Your task to perform on an android device: find snoozed emails in the gmail app Image 0: 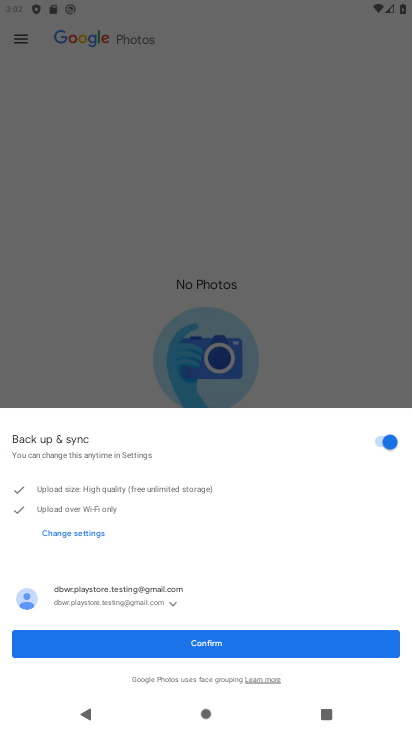
Step 0: press home button
Your task to perform on an android device: find snoozed emails in the gmail app Image 1: 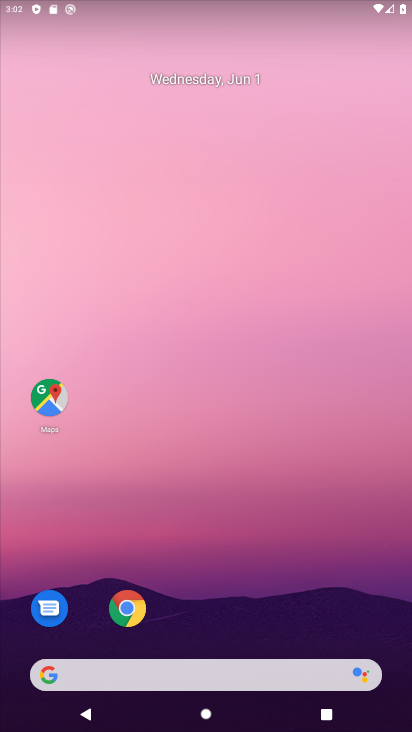
Step 1: drag from (186, 669) to (197, 50)
Your task to perform on an android device: find snoozed emails in the gmail app Image 2: 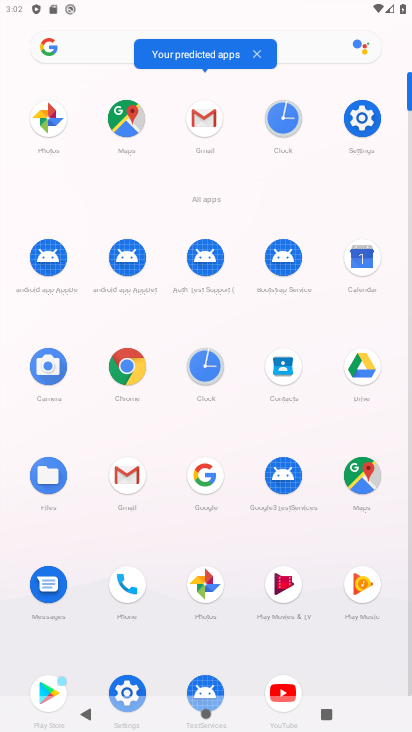
Step 2: click (139, 474)
Your task to perform on an android device: find snoozed emails in the gmail app Image 3: 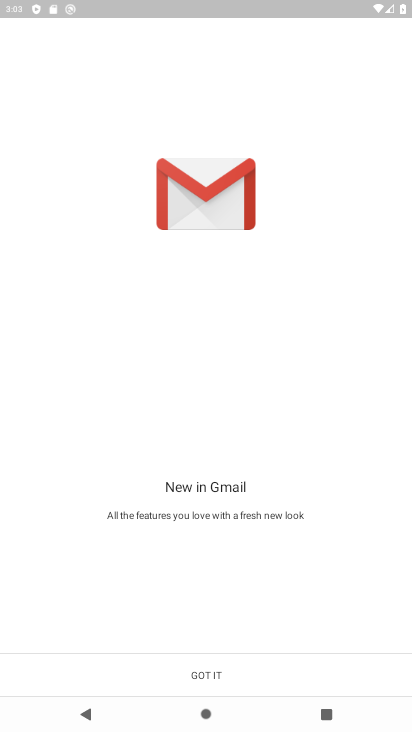
Step 3: click (219, 672)
Your task to perform on an android device: find snoozed emails in the gmail app Image 4: 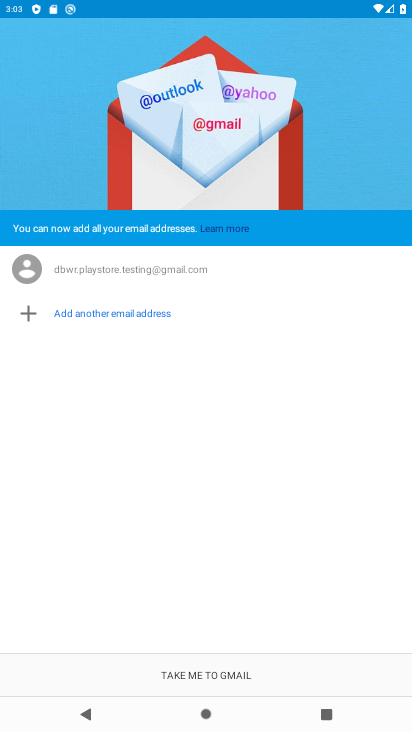
Step 4: click (240, 671)
Your task to perform on an android device: find snoozed emails in the gmail app Image 5: 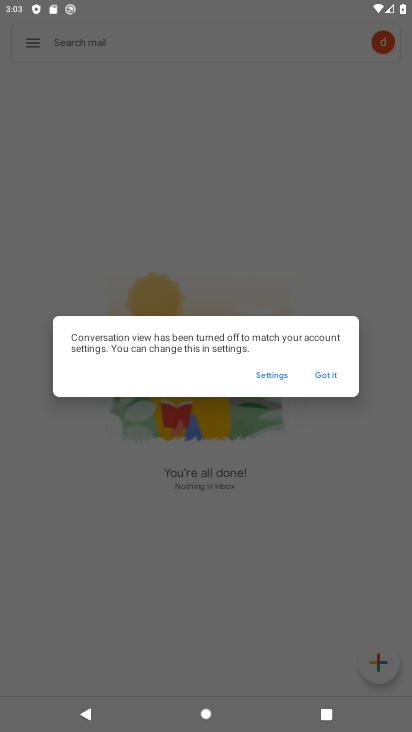
Step 5: click (324, 371)
Your task to perform on an android device: find snoozed emails in the gmail app Image 6: 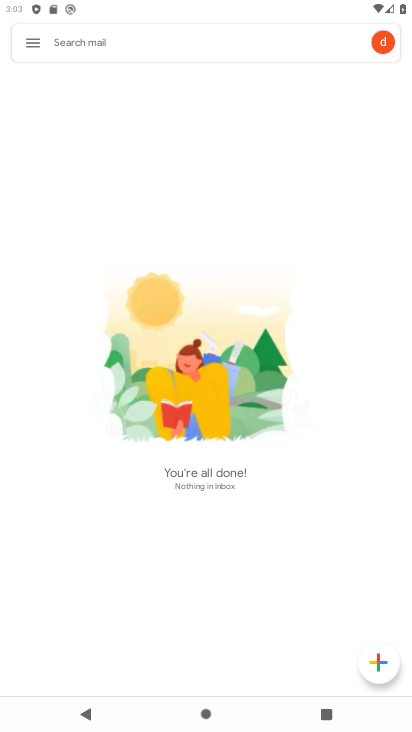
Step 6: click (26, 39)
Your task to perform on an android device: find snoozed emails in the gmail app Image 7: 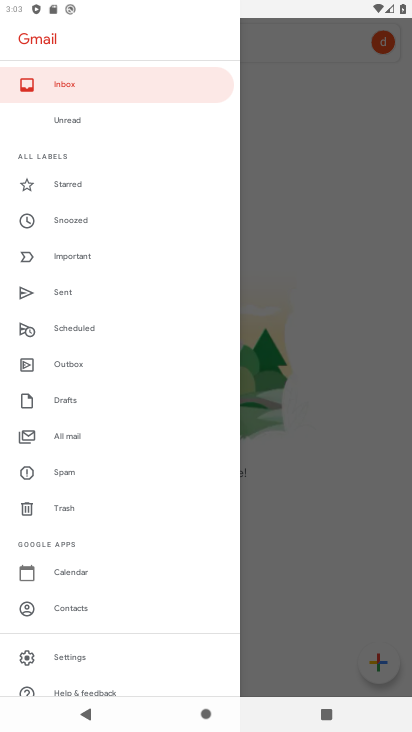
Step 7: drag from (110, 541) to (110, 198)
Your task to perform on an android device: find snoozed emails in the gmail app Image 8: 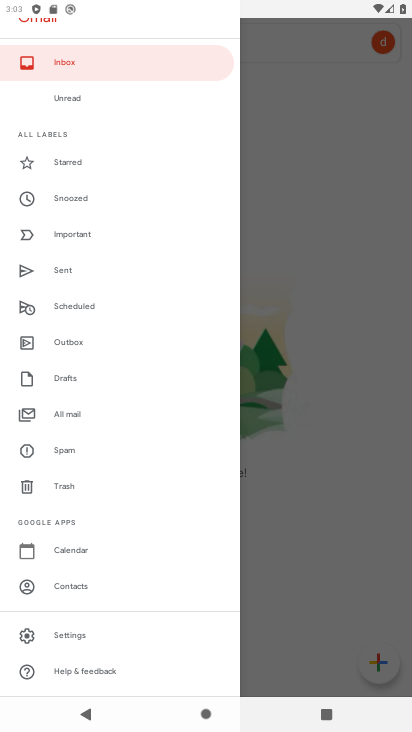
Step 8: click (63, 201)
Your task to perform on an android device: find snoozed emails in the gmail app Image 9: 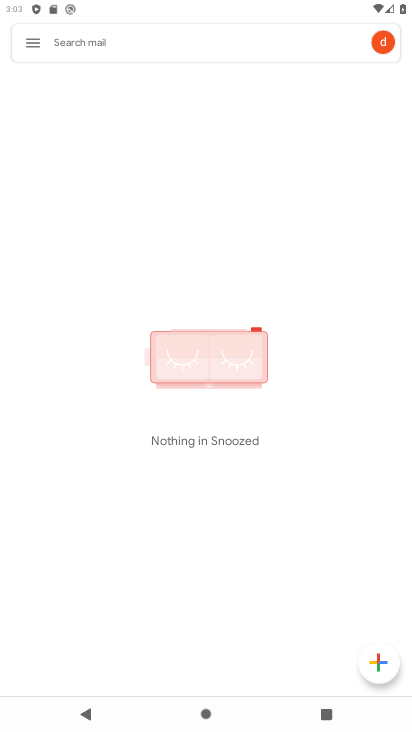
Step 9: task complete